Your task to perform on an android device: turn on javascript in the chrome app Image 0: 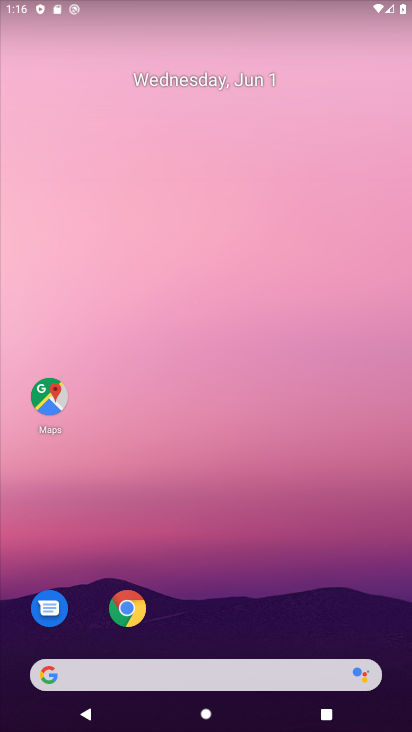
Step 0: click (130, 624)
Your task to perform on an android device: turn on javascript in the chrome app Image 1: 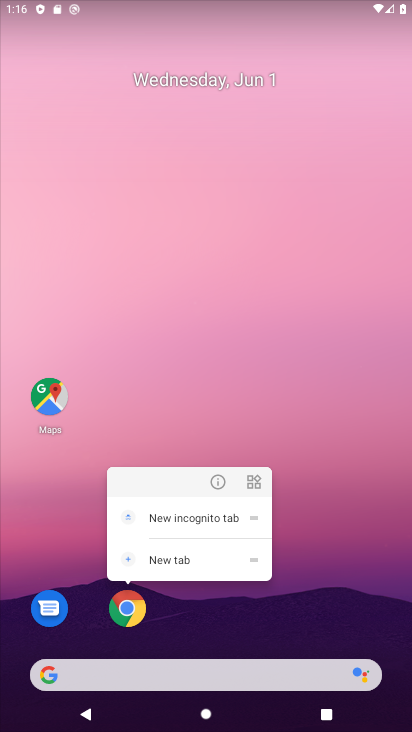
Step 1: click (125, 608)
Your task to perform on an android device: turn on javascript in the chrome app Image 2: 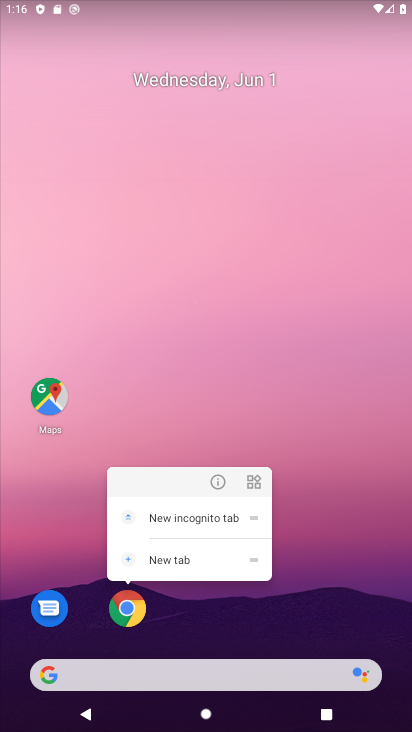
Step 2: click (125, 609)
Your task to perform on an android device: turn on javascript in the chrome app Image 3: 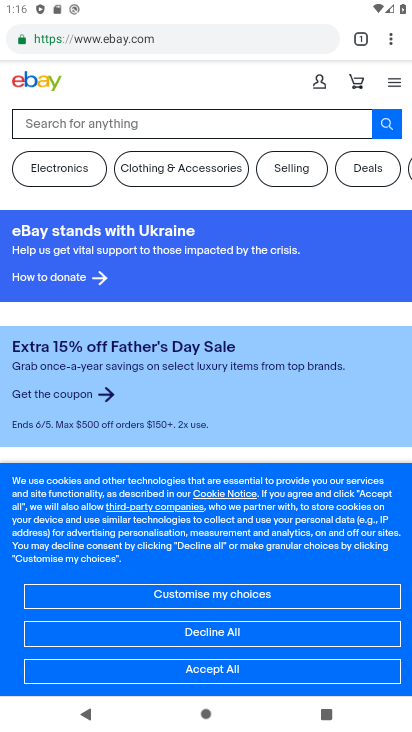
Step 3: click (398, 30)
Your task to perform on an android device: turn on javascript in the chrome app Image 4: 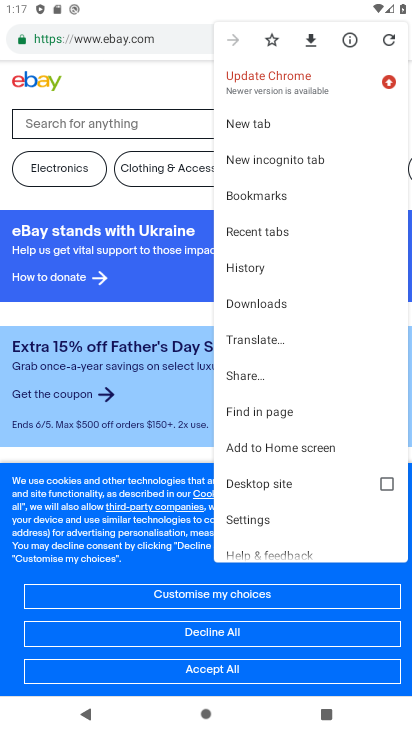
Step 4: click (250, 522)
Your task to perform on an android device: turn on javascript in the chrome app Image 5: 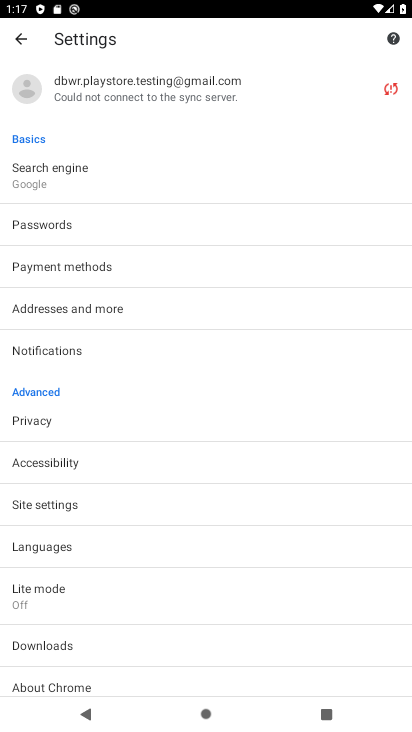
Step 5: click (60, 503)
Your task to perform on an android device: turn on javascript in the chrome app Image 6: 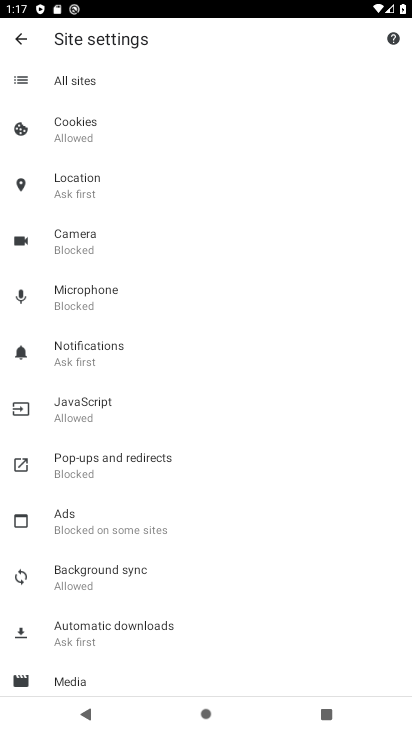
Step 6: click (73, 410)
Your task to perform on an android device: turn on javascript in the chrome app Image 7: 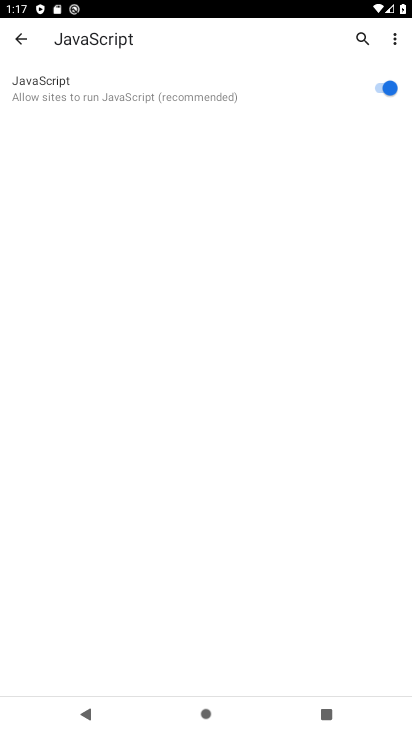
Step 7: task complete